Your task to perform on an android device: turn off data saver in the chrome app Image 0: 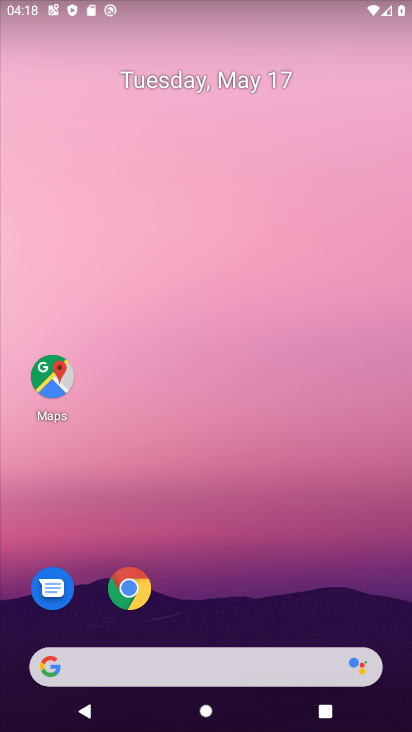
Step 0: click (128, 586)
Your task to perform on an android device: turn off data saver in the chrome app Image 1: 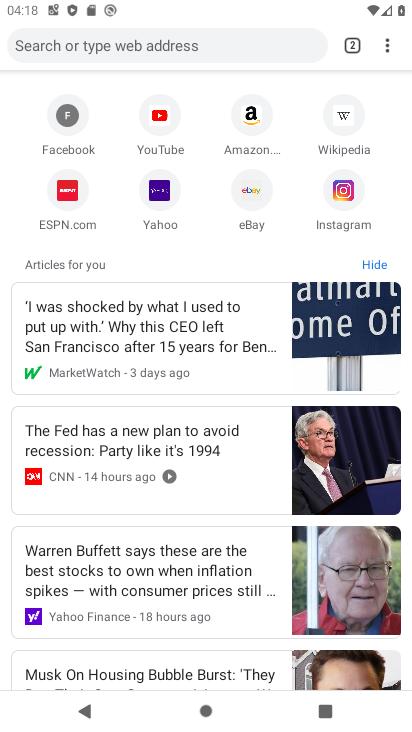
Step 1: click (386, 42)
Your task to perform on an android device: turn off data saver in the chrome app Image 2: 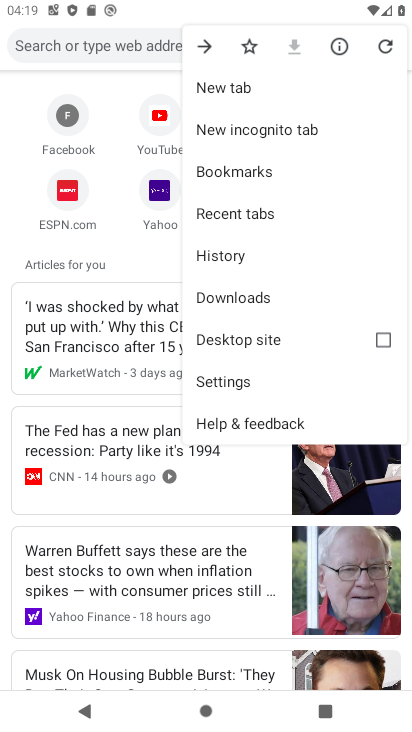
Step 2: click (235, 379)
Your task to perform on an android device: turn off data saver in the chrome app Image 3: 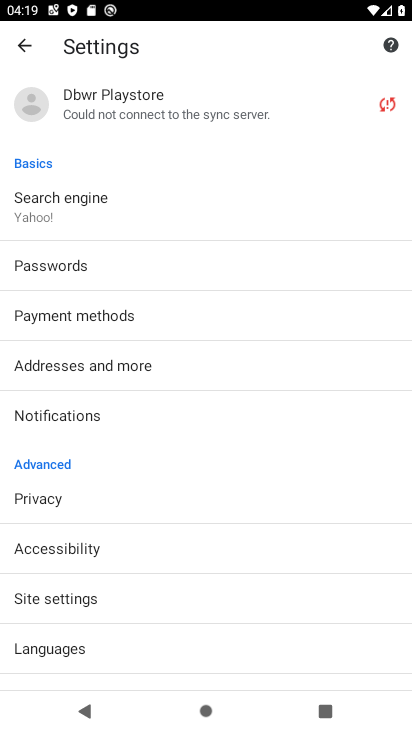
Step 3: drag from (125, 559) to (186, 473)
Your task to perform on an android device: turn off data saver in the chrome app Image 4: 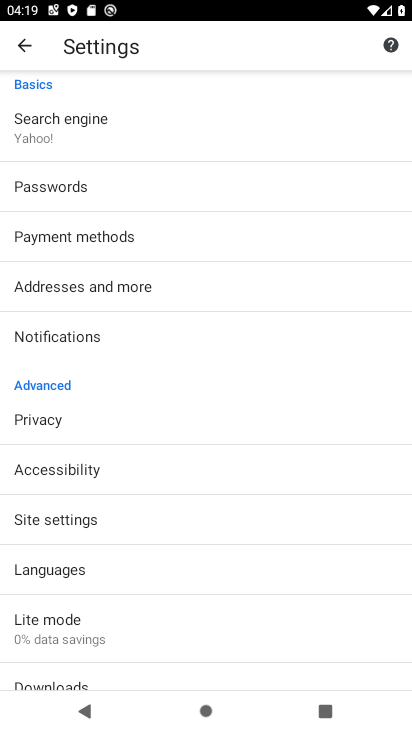
Step 4: drag from (113, 553) to (159, 474)
Your task to perform on an android device: turn off data saver in the chrome app Image 5: 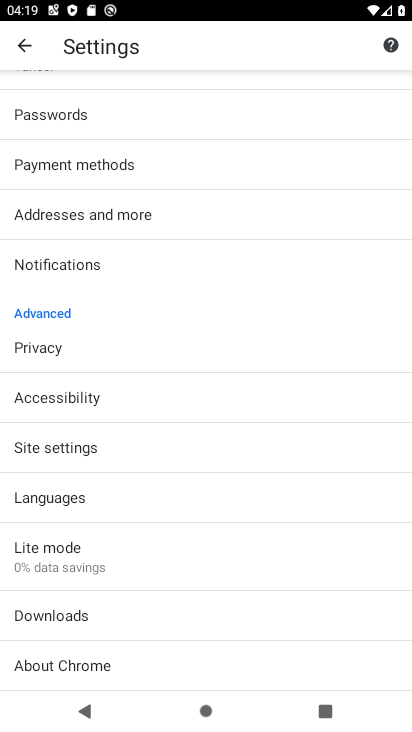
Step 5: click (71, 555)
Your task to perform on an android device: turn off data saver in the chrome app Image 6: 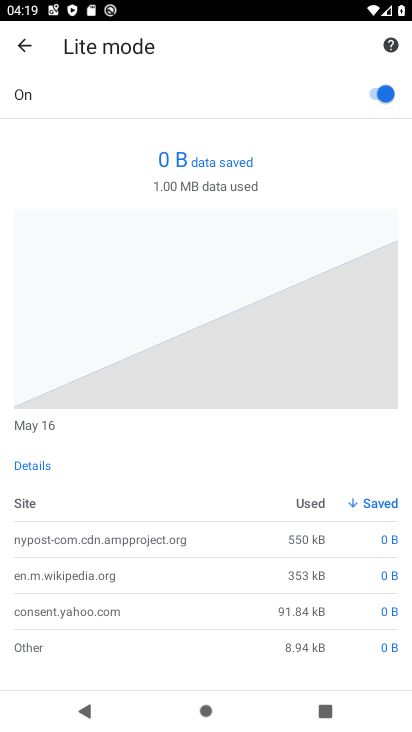
Step 6: click (381, 93)
Your task to perform on an android device: turn off data saver in the chrome app Image 7: 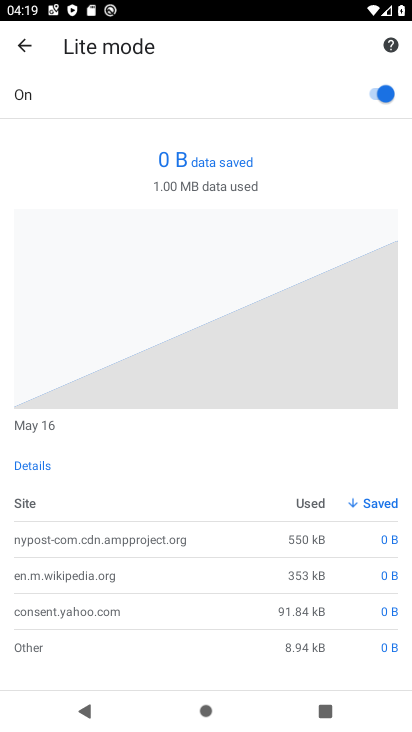
Step 7: click (381, 93)
Your task to perform on an android device: turn off data saver in the chrome app Image 8: 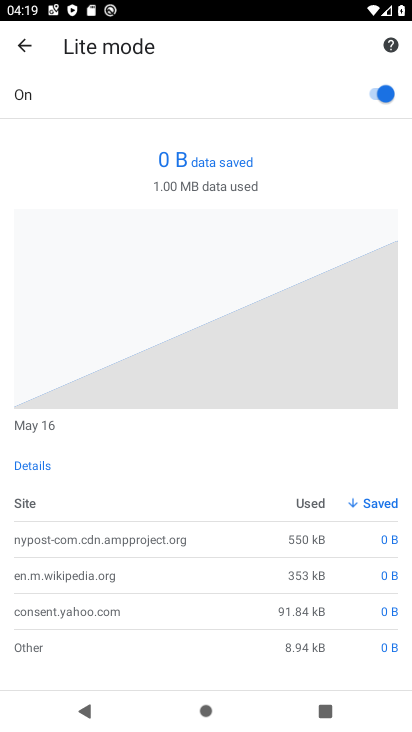
Step 8: click (387, 96)
Your task to perform on an android device: turn off data saver in the chrome app Image 9: 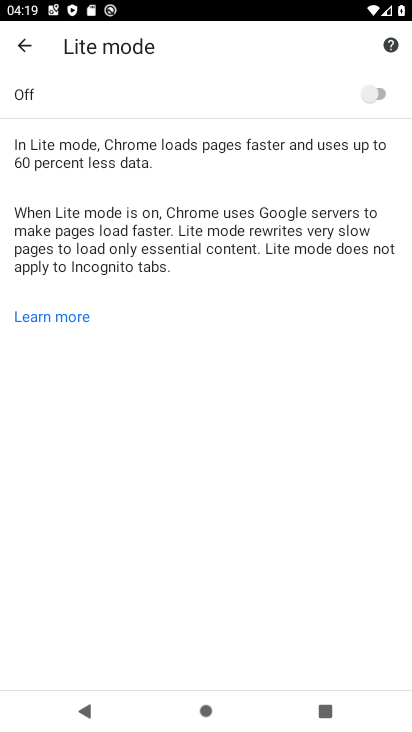
Step 9: task complete